Your task to perform on an android device: Open my contact list Image 0: 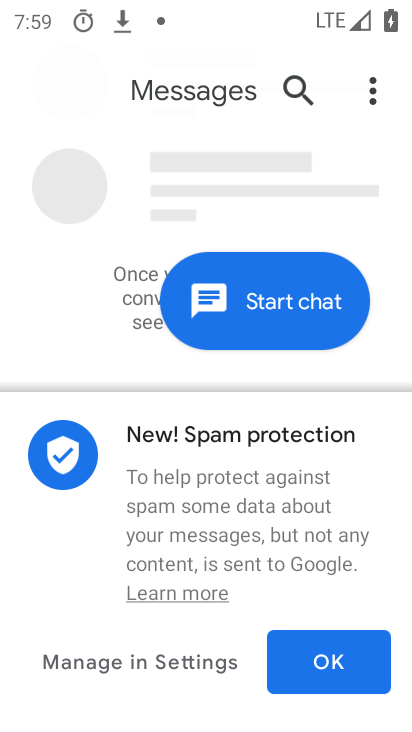
Step 0: press home button
Your task to perform on an android device: Open my contact list Image 1: 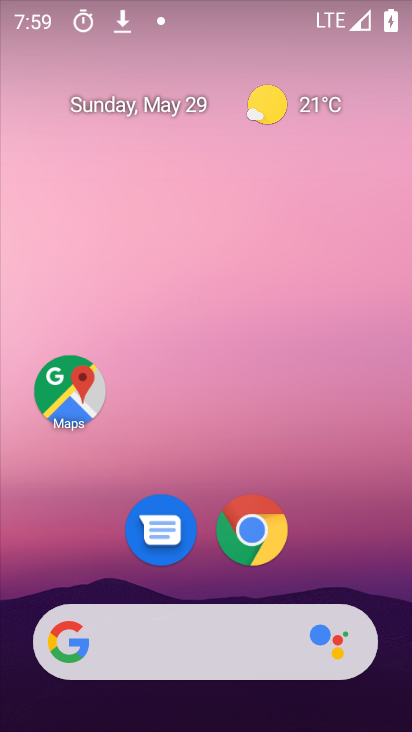
Step 1: drag from (237, 637) to (265, 9)
Your task to perform on an android device: Open my contact list Image 2: 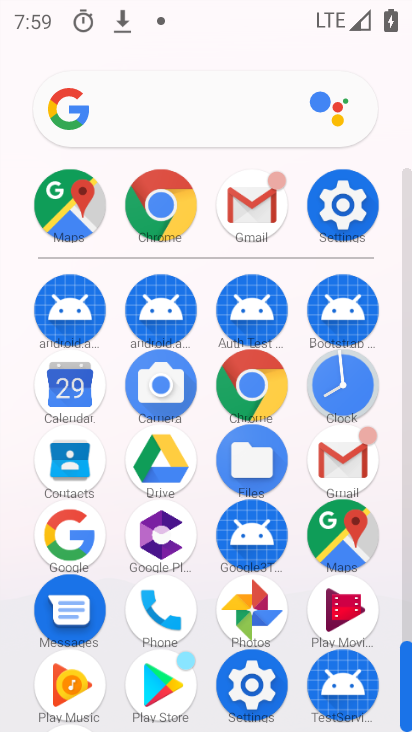
Step 2: click (162, 624)
Your task to perform on an android device: Open my contact list Image 3: 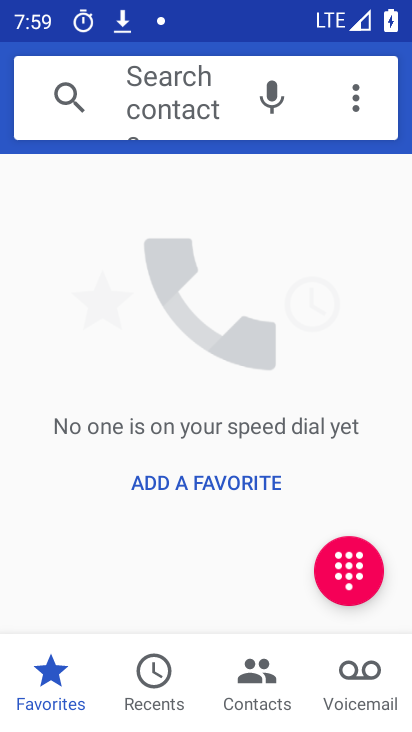
Step 3: click (240, 677)
Your task to perform on an android device: Open my contact list Image 4: 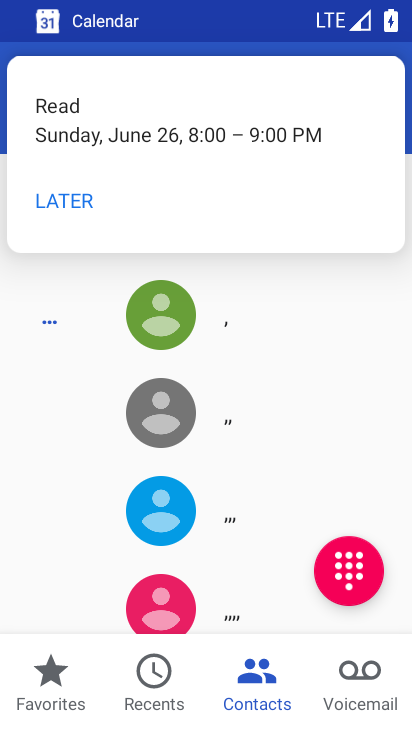
Step 4: task complete